Your task to perform on an android device: open wifi settings Image 0: 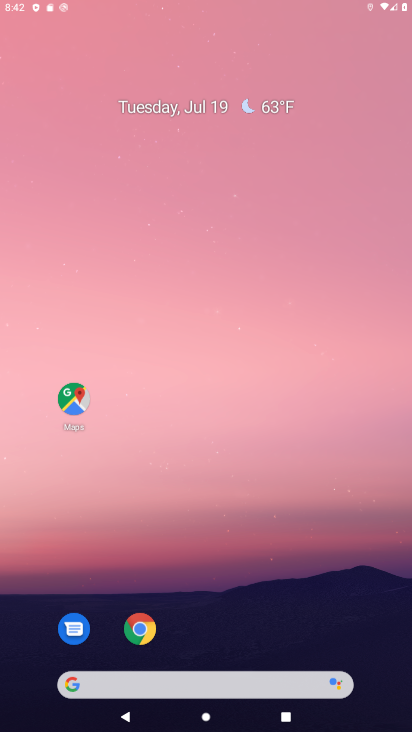
Step 0: press home button
Your task to perform on an android device: open wifi settings Image 1: 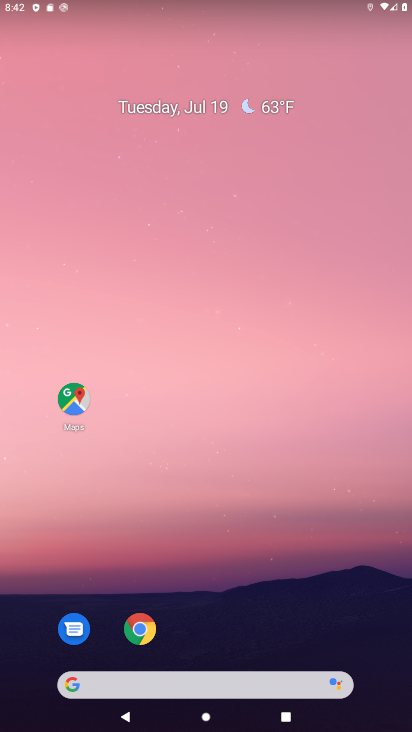
Step 1: drag from (218, 640) to (285, 6)
Your task to perform on an android device: open wifi settings Image 2: 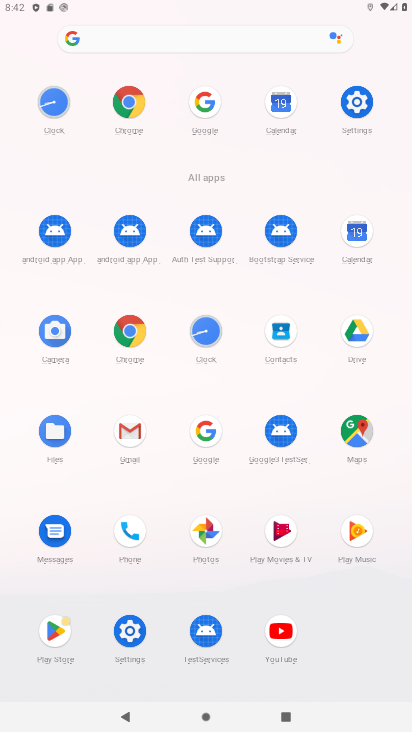
Step 2: click (351, 100)
Your task to perform on an android device: open wifi settings Image 3: 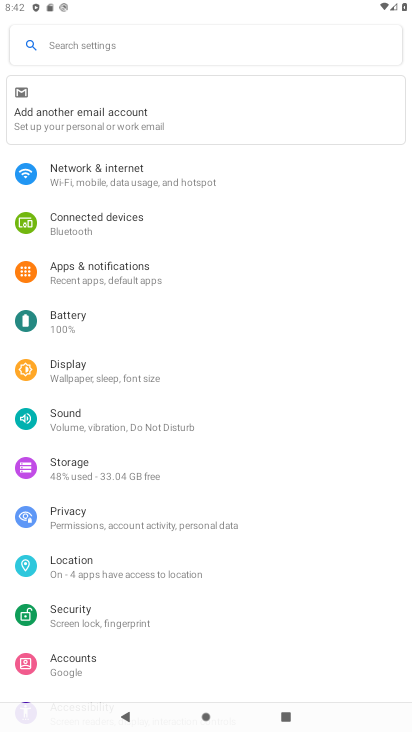
Step 3: click (115, 170)
Your task to perform on an android device: open wifi settings Image 4: 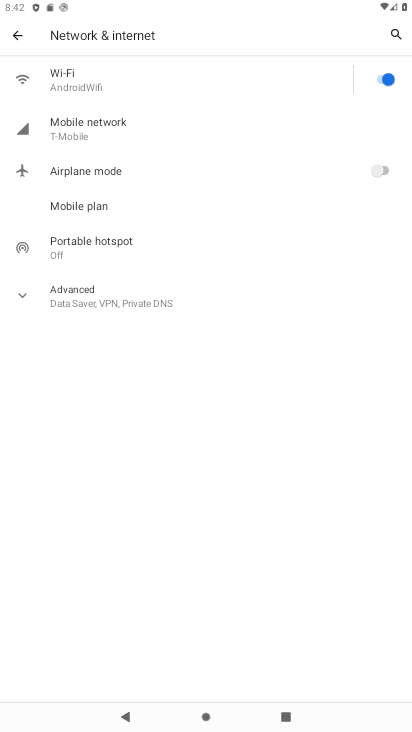
Step 4: click (104, 75)
Your task to perform on an android device: open wifi settings Image 5: 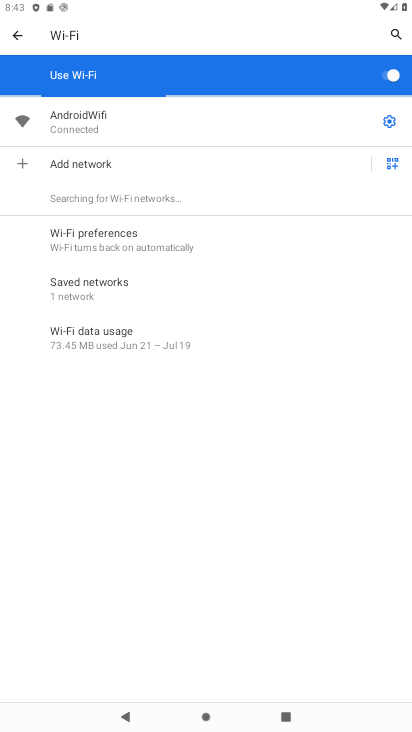
Step 5: task complete